Your task to perform on an android device: Show the shopping cart on ebay.com. Add "bose quietcomfort 35" to the cart on ebay.com, then select checkout. Image 0: 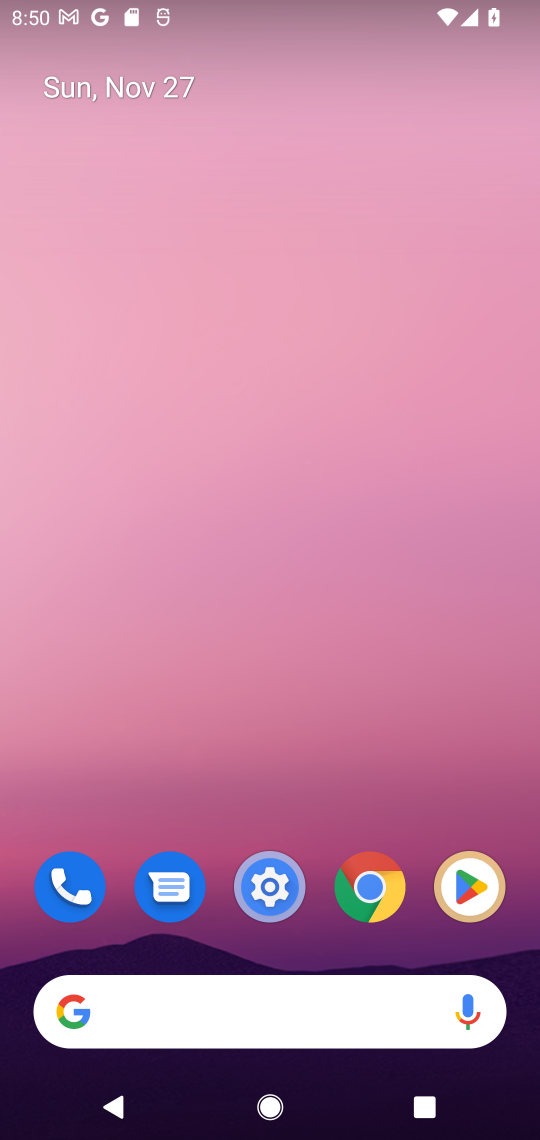
Step 0: click (233, 1015)
Your task to perform on an android device: Show the shopping cart on ebay.com. Add "bose quietcomfort 35" to the cart on ebay.com, then select checkout. Image 1: 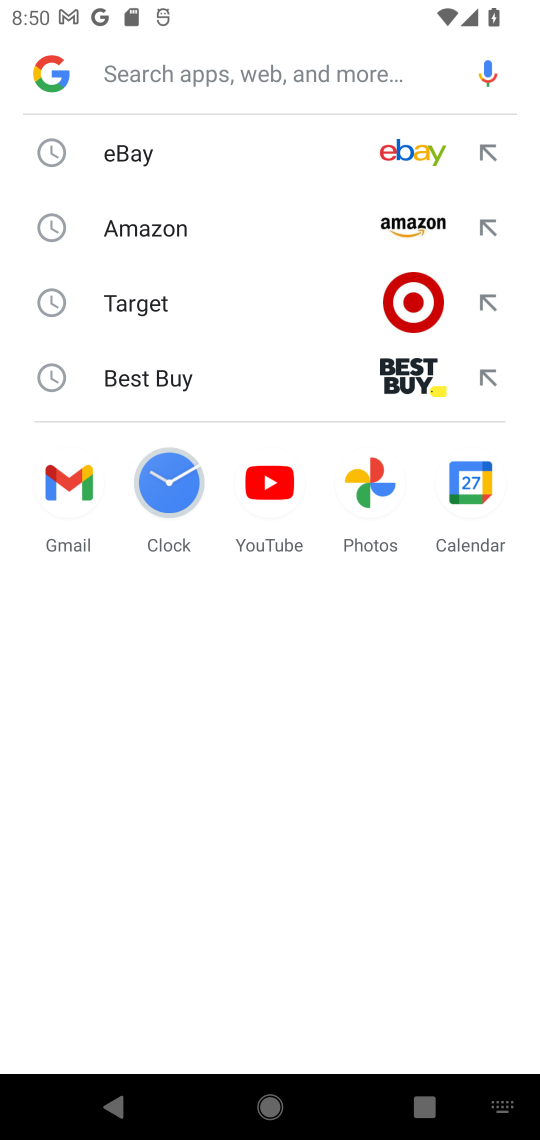
Step 1: type "ebay.com"
Your task to perform on an android device: Show the shopping cart on ebay.com. Add "bose quietcomfort 35" to the cart on ebay.com, then select checkout. Image 2: 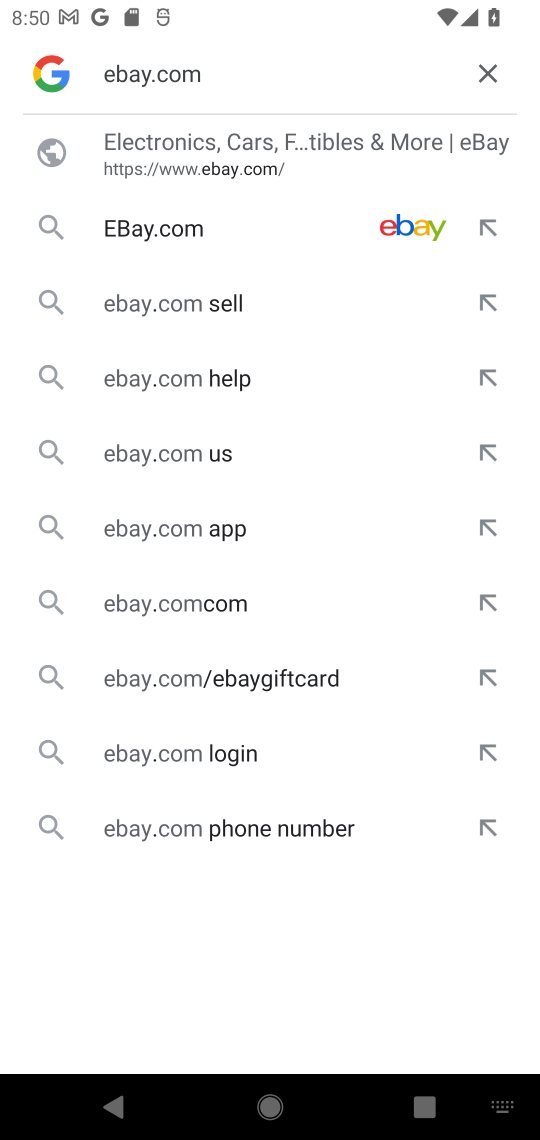
Step 2: click (146, 165)
Your task to perform on an android device: Show the shopping cart on ebay.com. Add "bose quietcomfort 35" to the cart on ebay.com, then select checkout. Image 3: 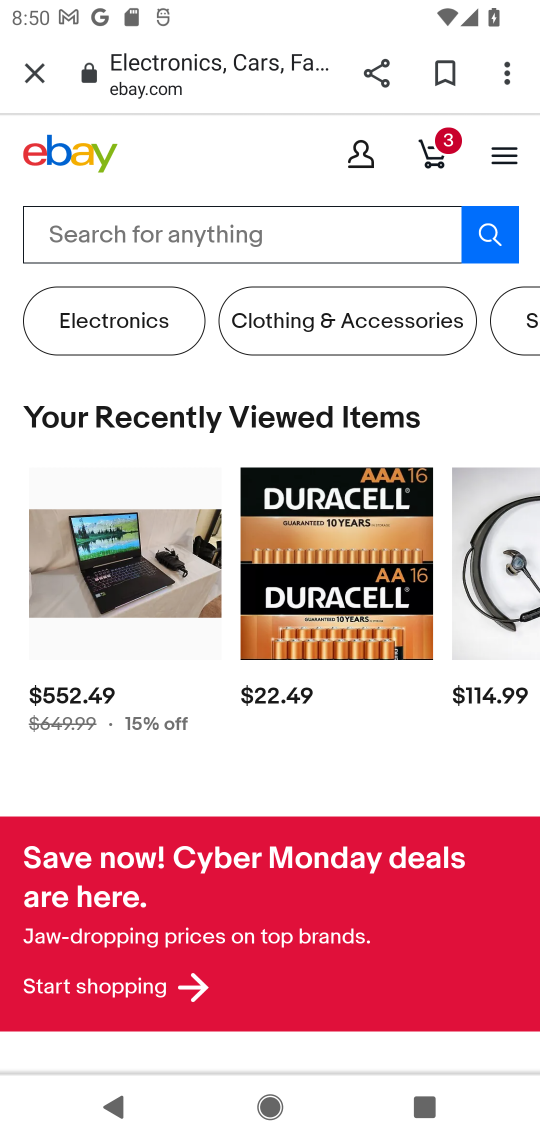
Step 3: click (189, 241)
Your task to perform on an android device: Show the shopping cart on ebay.com. Add "bose quietcomfort 35" to the cart on ebay.com, then select checkout. Image 4: 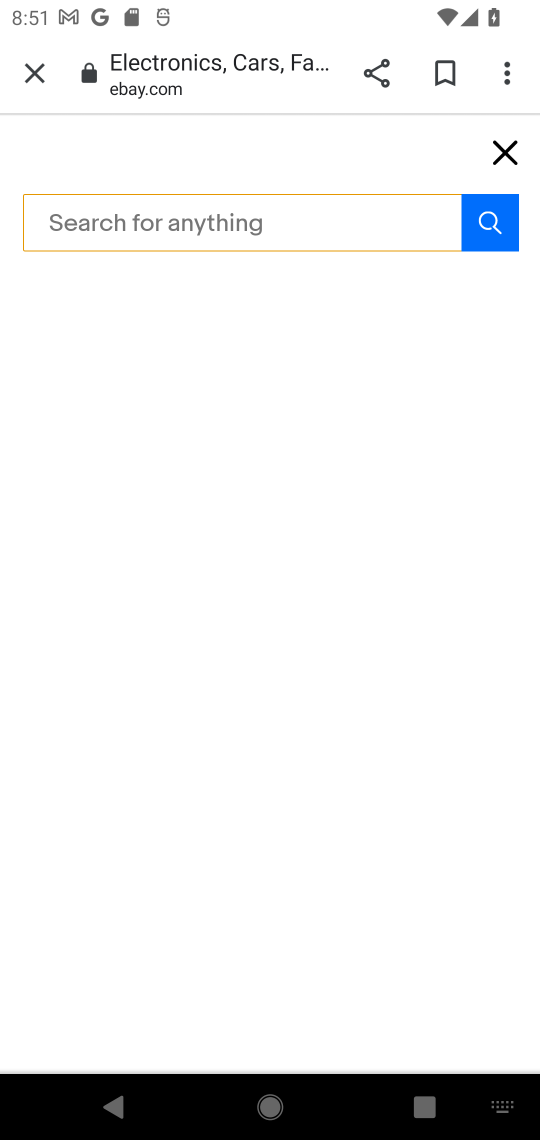
Step 4: type "quietcomfort 35"
Your task to perform on an android device: Show the shopping cart on ebay.com. Add "bose quietcomfort 35" to the cart on ebay.com, then select checkout. Image 5: 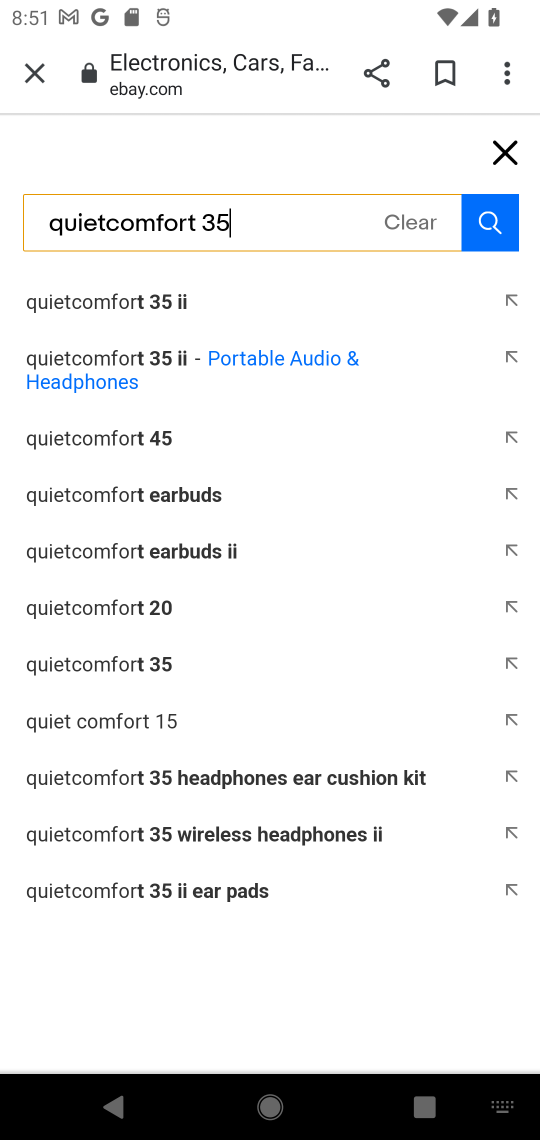
Step 5: click (129, 334)
Your task to perform on an android device: Show the shopping cart on ebay.com. Add "bose quietcomfort 35" to the cart on ebay.com, then select checkout. Image 6: 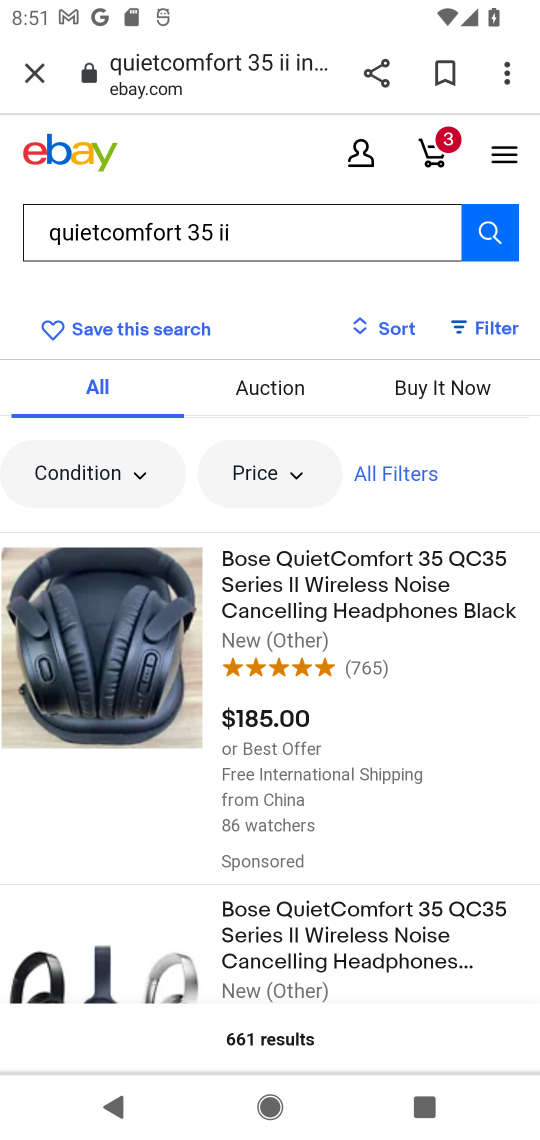
Step 6: click (323, 604)
Your task to perform on an android device: Show the shopping cart on ebay.com. Add "bose quietcomfort 35" to the cart on ebay.com, then select checkout. Image 7: 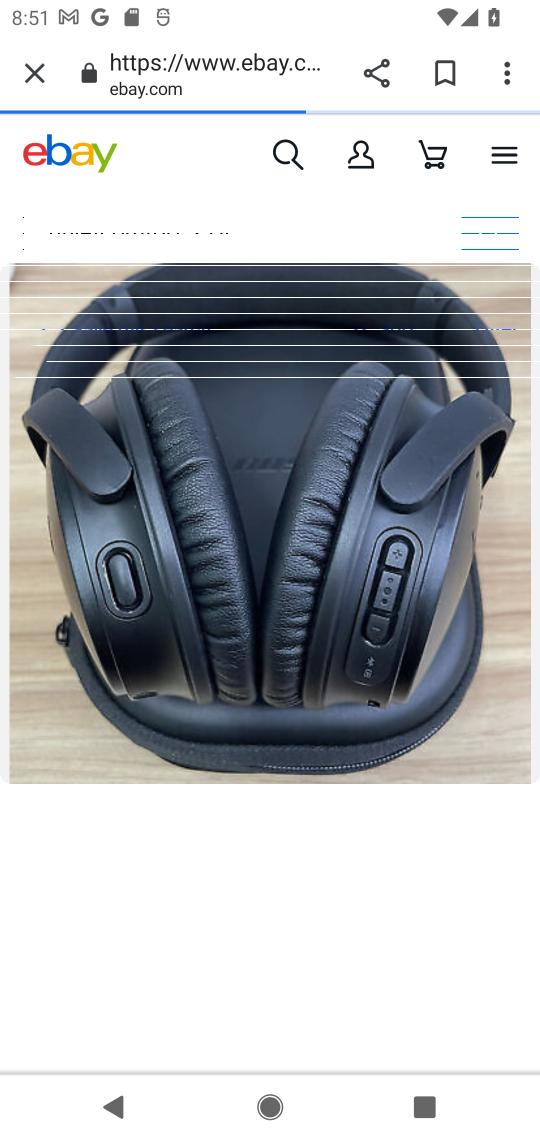
Step 7: task complete